Your task to perform on an android device: Open the phone app and click the voicemail tab. Image 0: 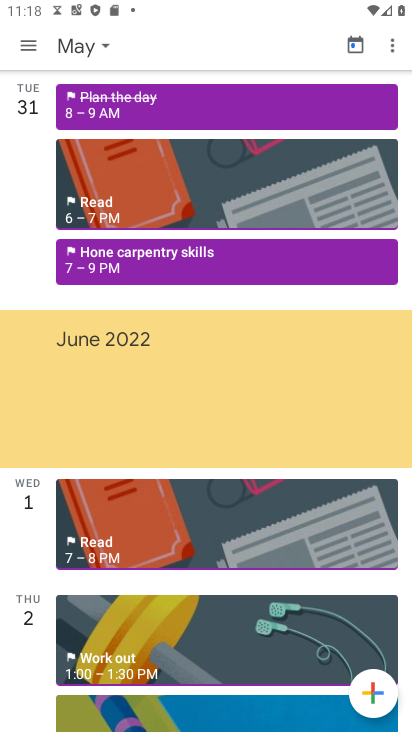
Step 0: press home button
Your task to perform on an android device: Open the phone app and click the voicemail tab. Image 1: 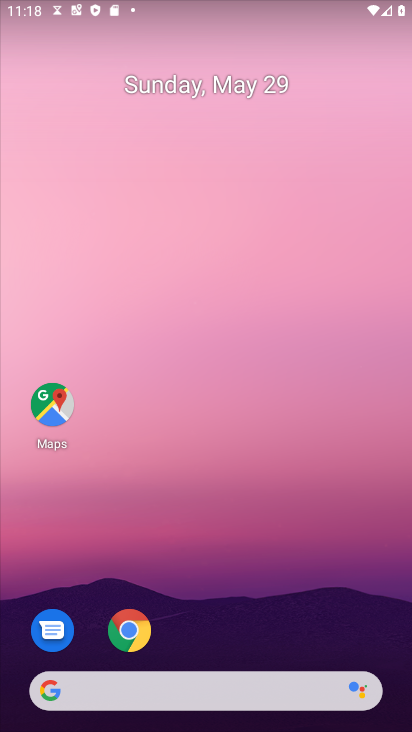
Step 1: drag from (253, 397) to (227, 145)
Your task to perform on an android device: Open the phone app and click the voicemail tab. Image 2: 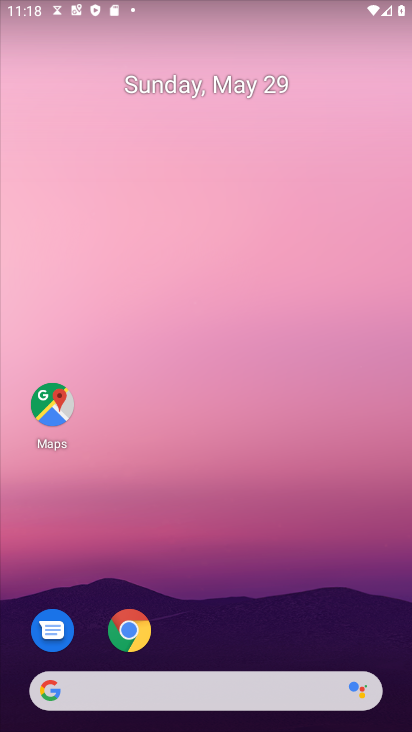
Step 2: drag from (246, 587) to (207, 129)
Your task to perform on an android device: Open the phone app and click the voicemail tab. Image 3: 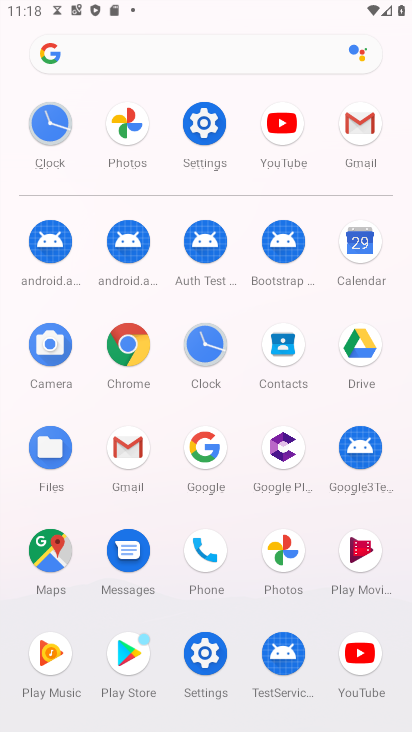
Step 3: click (204, 559)
Your task to perform on an android device: Open the phone app and click the voicemail tab. Image 4: 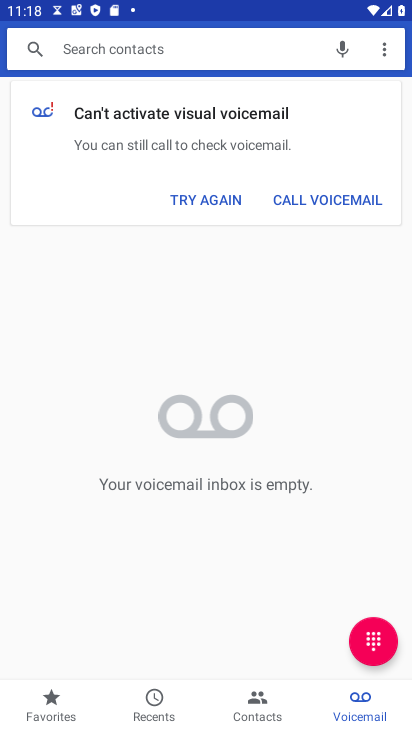
Step 4: click (365, 705)
Your task to perform on an android device: Open the phone app and click the voicemail tab. Image 5: 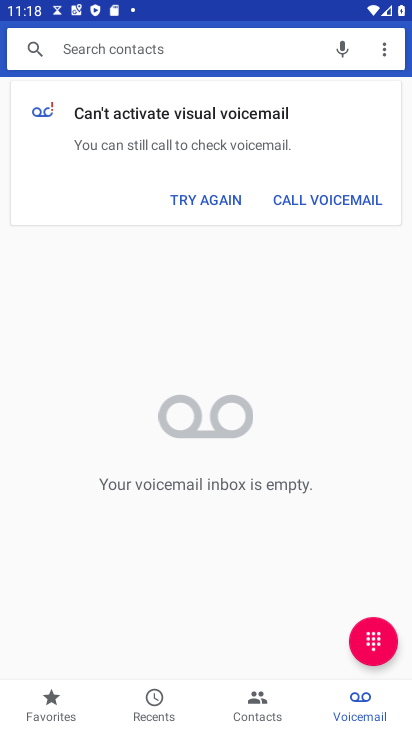
Step 5: task complete